Your task to perform on an android device: open app "The Home Depot" (install if not already installed) and enter user name: "taproot@icloud.com" and password: "executions" Image 0: 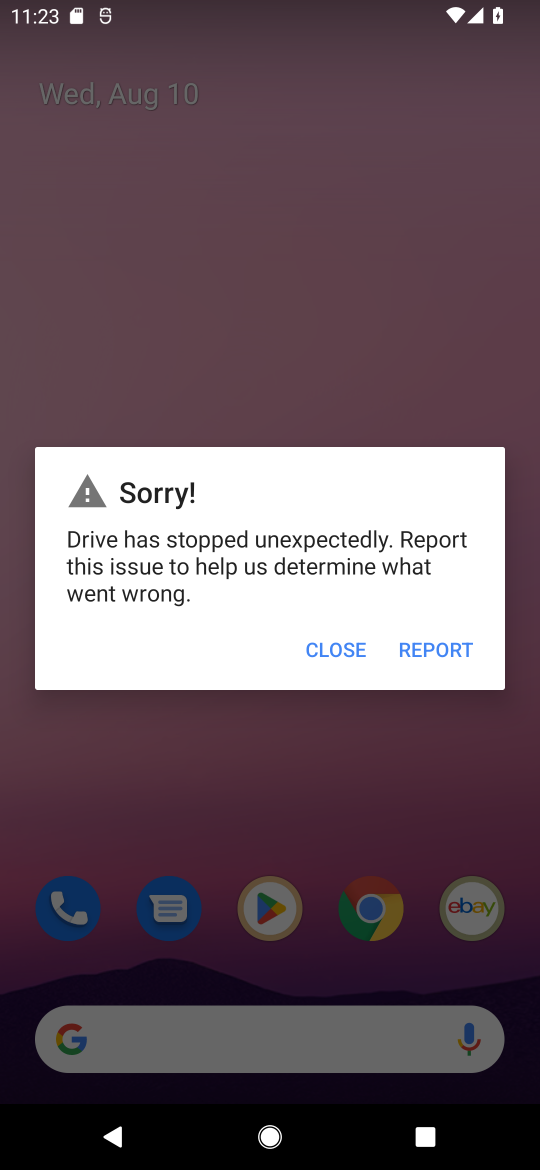
Step 0: press home button
Your task to perform on an android device: open app "The Home Depot" (install if not already installed) and enter user name: "taproot@icloud.com" and password: "executions" Image 1: 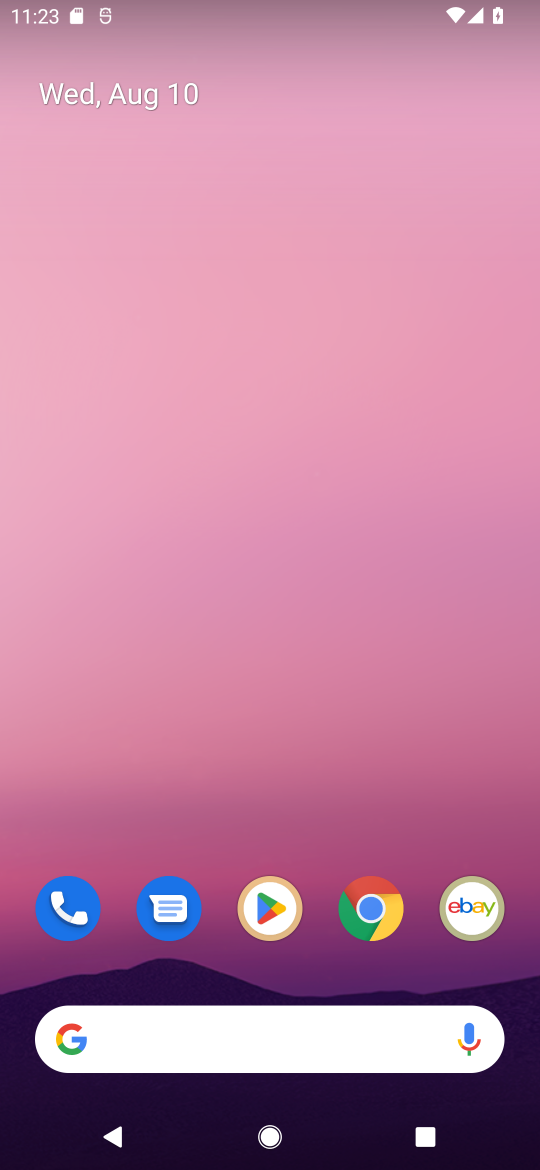
Step 1: click (265, 932)
Your task to perform on an android device: open app "The Home Depot" (install if not already installed) and enter user name: "taproot@icloud.com" and password: "executions" Image 2: 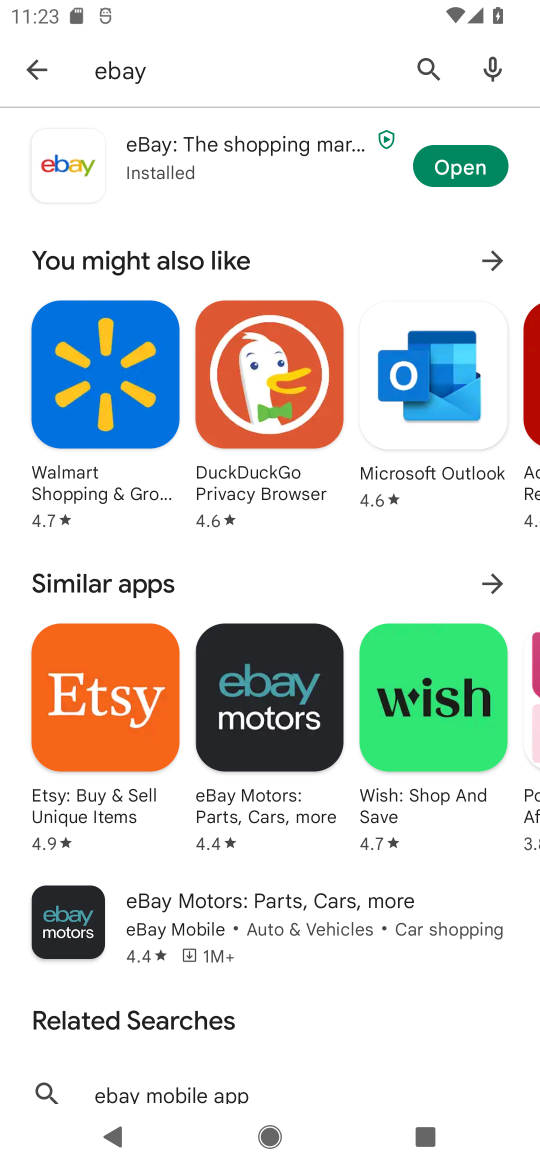
Step 2: click (416, 65)
Your task to perform on an android device: open app "The Home Depot" (install if not already installed) and enter user name: "taproot@icloud.com" and password: "executions" Image 3: 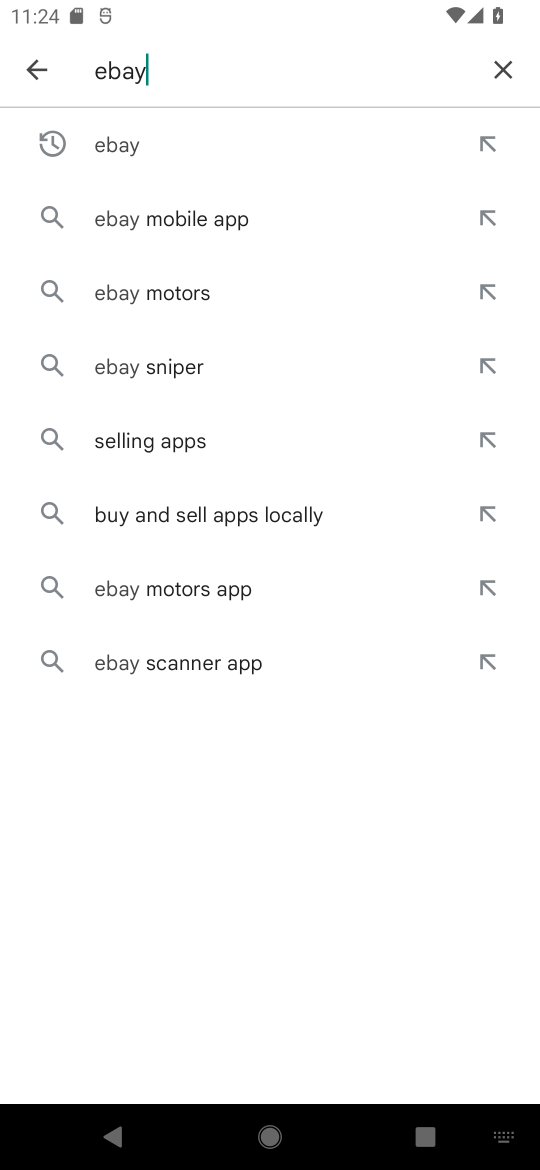
Step 3: click (502, 72)
Your task to perform on an android device: open app "The Home Depot" (install if not already installed) and enter user name: "taproot@icloud.com" and password: "executions" Image 4: 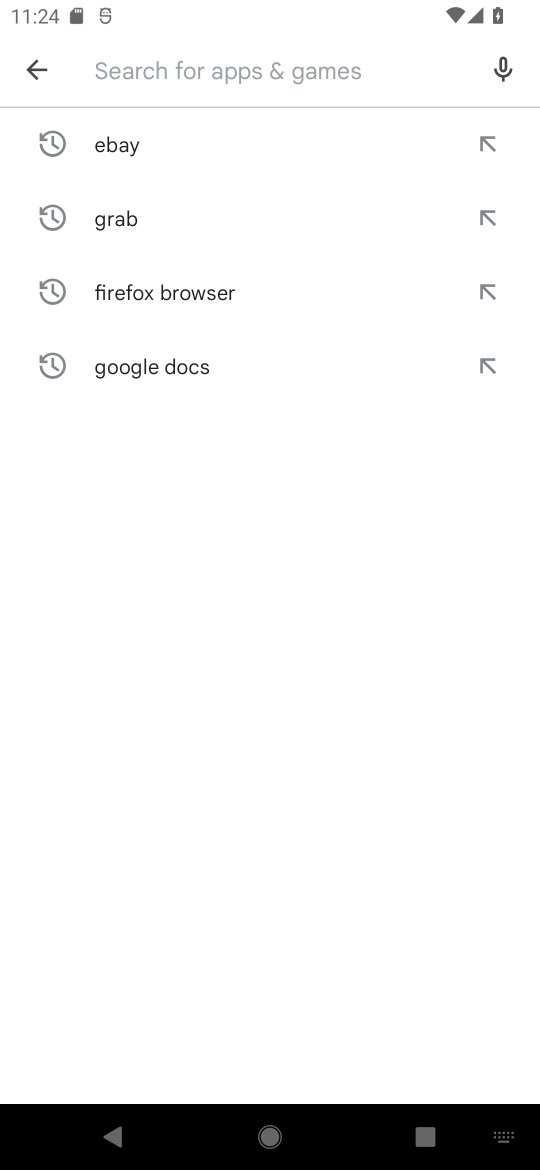
Step 4: type "home depot"
Your task to perform on an android device: open app "The Home Depot" (install if not already installed) and enter user name: "taproot@icloud.com" and password: "executions" Image 5: 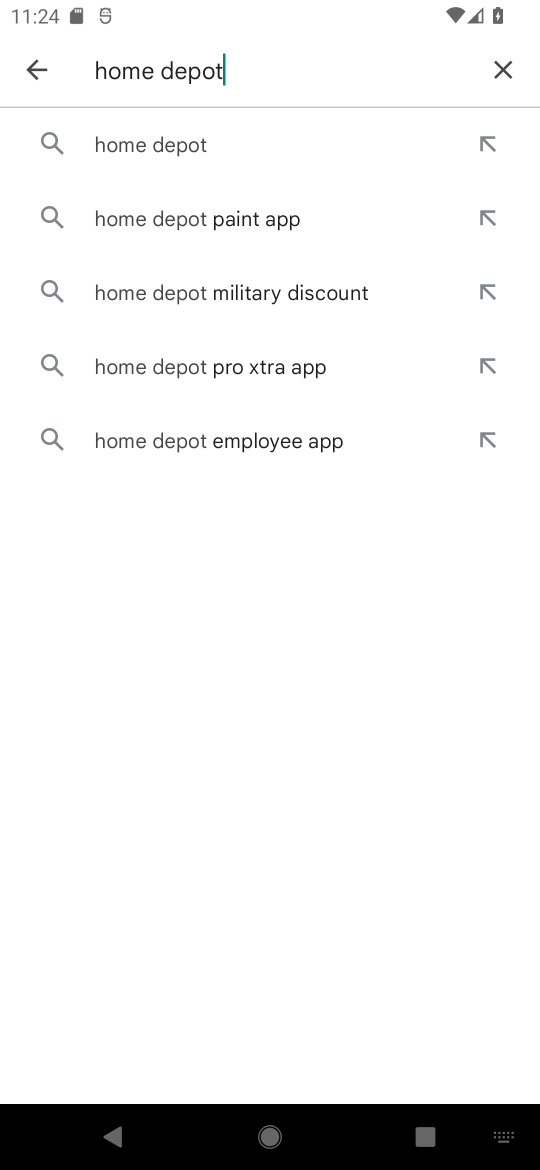
Step 5: click (207, 145)
Your task to perform on an android device: open app "The Home Depot" (install if not already installed) and enter user name: "taproot@icloud.com" and password: "executions" Image 6: 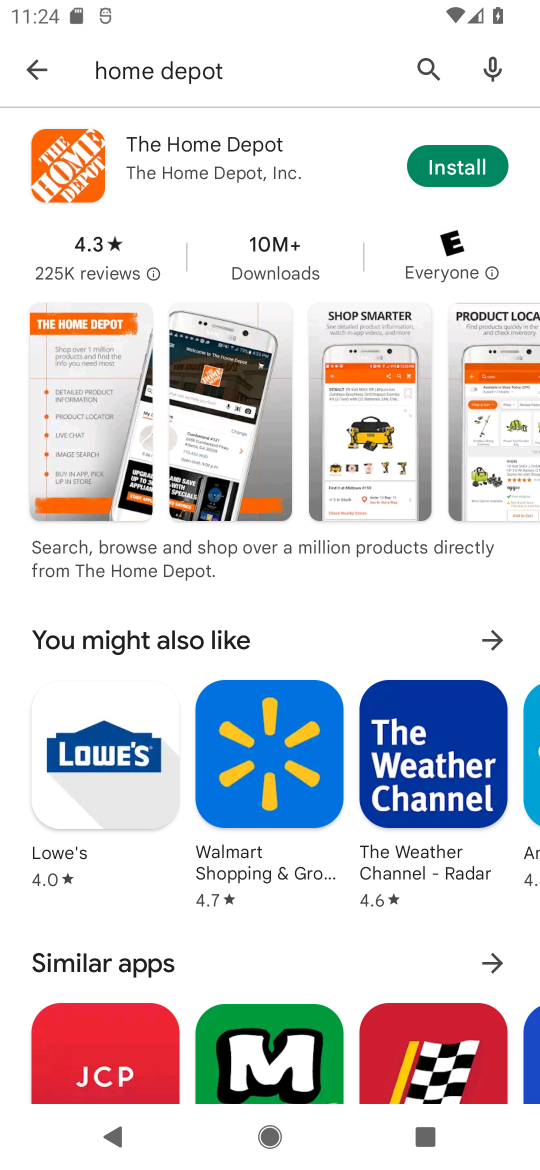
Step 6: click (431, 166)
Your task to perform on an android device: open app "The Home Depot" (install if not already installed) and enter user name: "taproot@icloud.com" and password: "executions" Image 7: 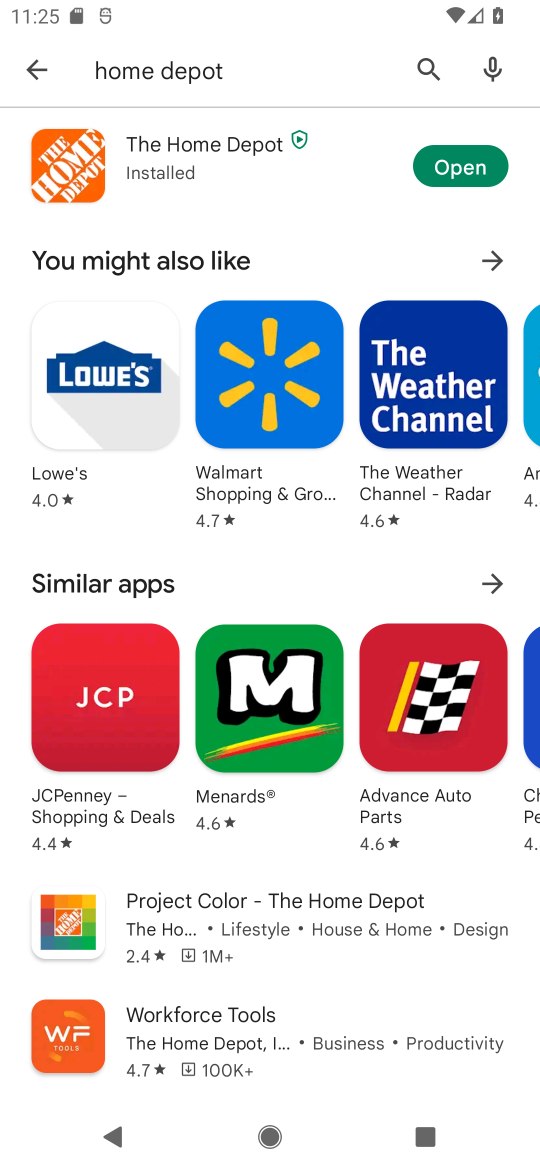
Step 7: click (433, 168)
Your task to perform on an android device: open app "The Home Depot" (install if not already installed) and enter user name: "taproot@icloud.com" and password: "executions" Image 8: 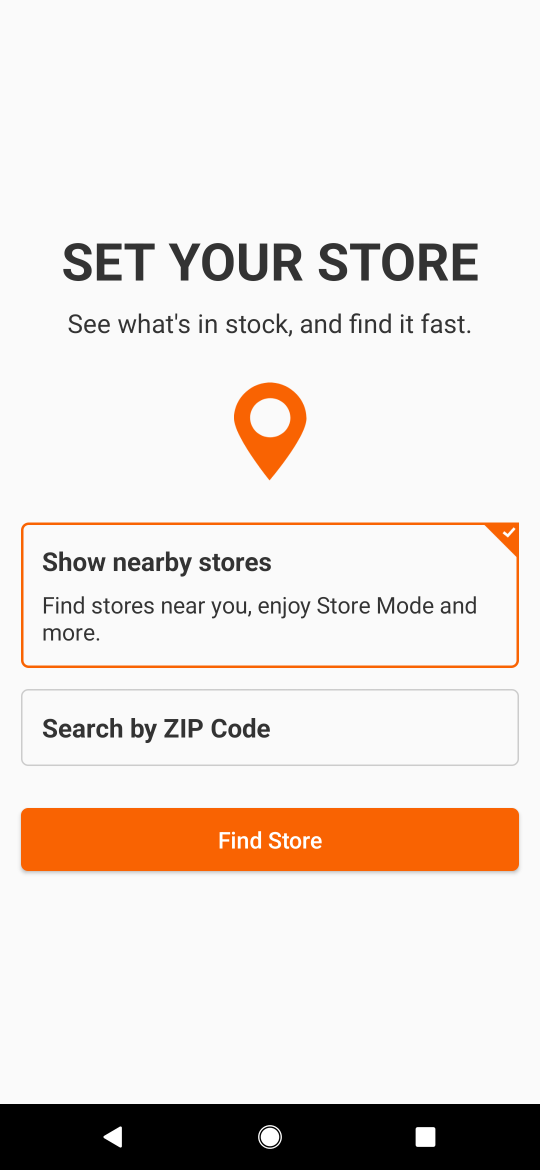
Step 8: click (272, 828)
Your task to perform on an android device: open app "The Home Depot" (install if not already installed) and enter user name: "taproot@icloud.com" and password: "executions" Image 9: 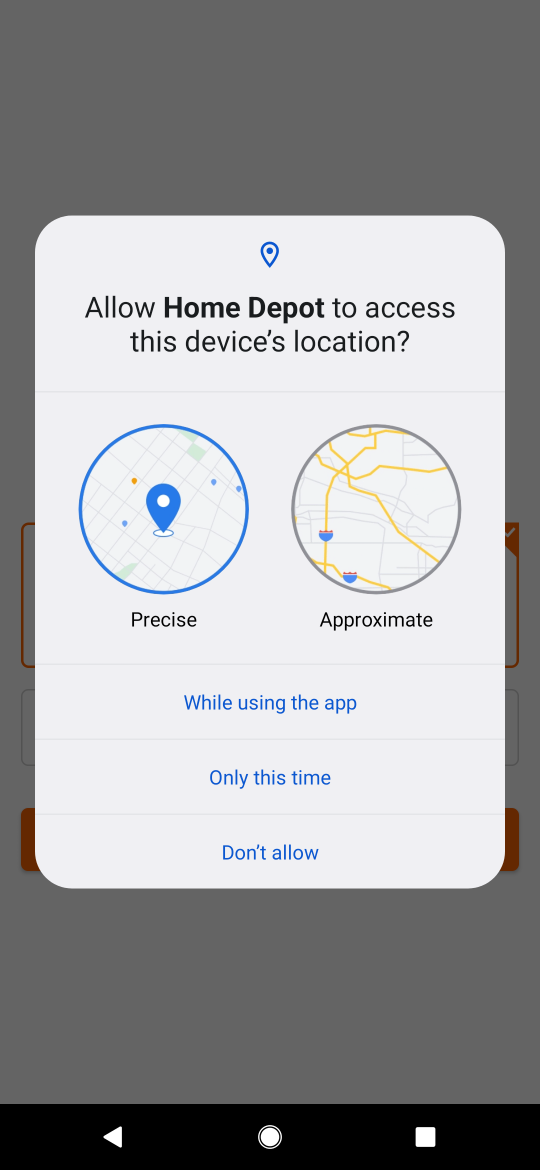
Step 9: click (285, 769)
Your task to perform on an android device: open app "The Home Depot" (install if not already installed) and enter user name: "taproot@icloud.com" and password: "executions" Image 10: 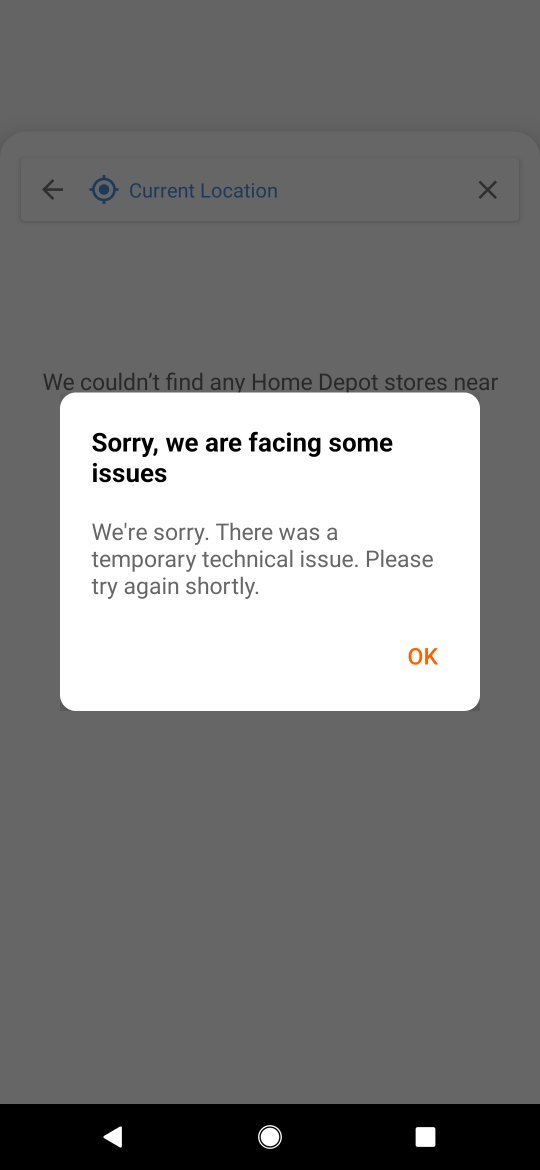
Step 10: task complete